Your task to perform on an android device: What is the recent news? Image 0: 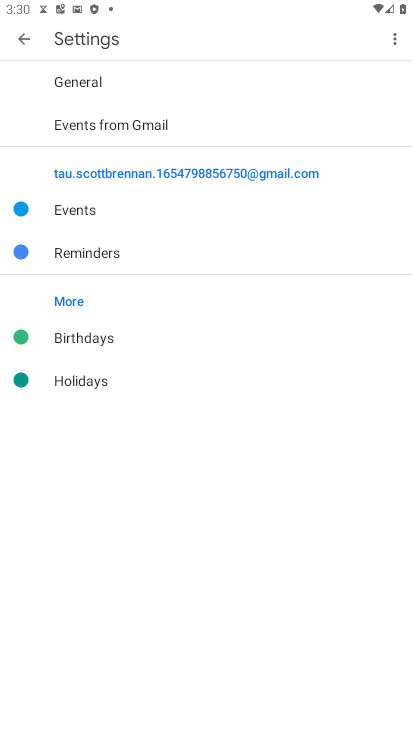
Step 0: press home button
Your task to perform on an android device: What is the recent news? Image 1: 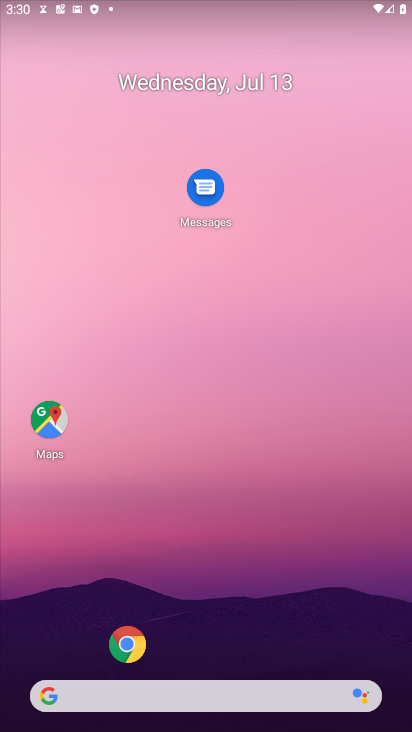
Step 1: click (183, 688)
Your task to perform on an android device: What is the recent news? Image 2: 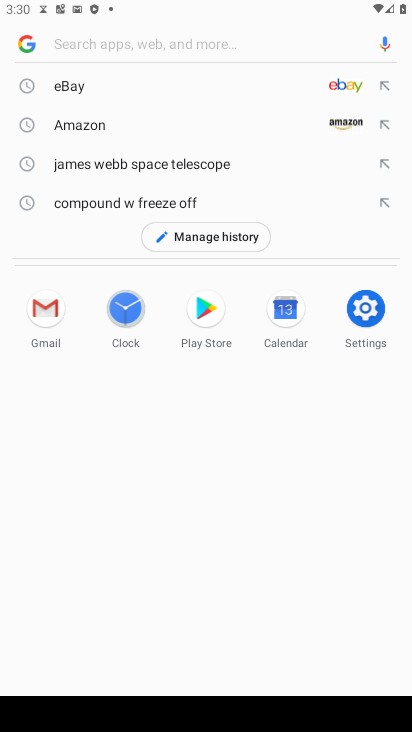
Step 2: type "What is the recent news?"
Your task to perform on an android device: What is the recent news? Image 3: 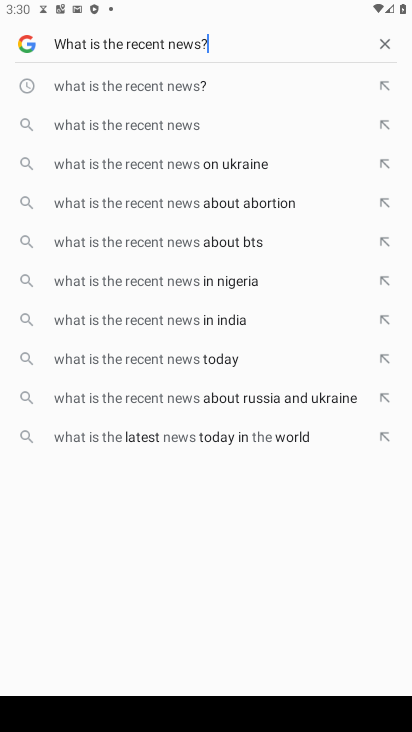
Step 3: type ""
Your task to perform on an android device: What is the recent news? Image 4: 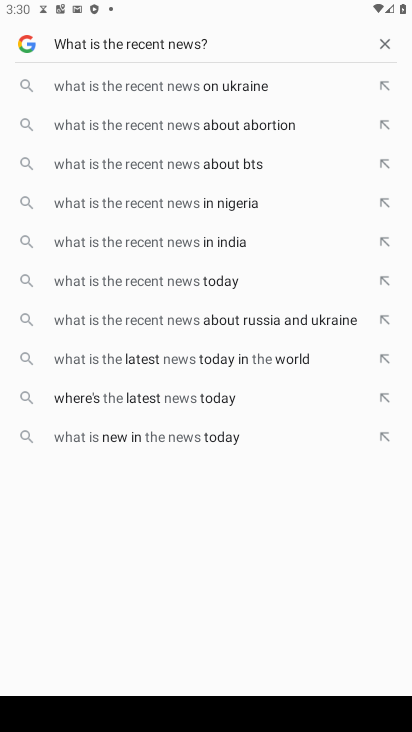
Step 4: type ""
Your task to perform on an android device: What is the recent news? Image 5: 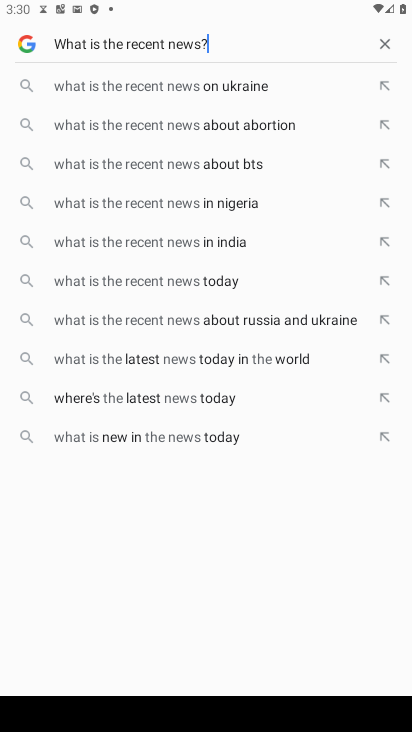
Step 5: type ""
Your task to perform on an android device: What is the recent news? Image 6: 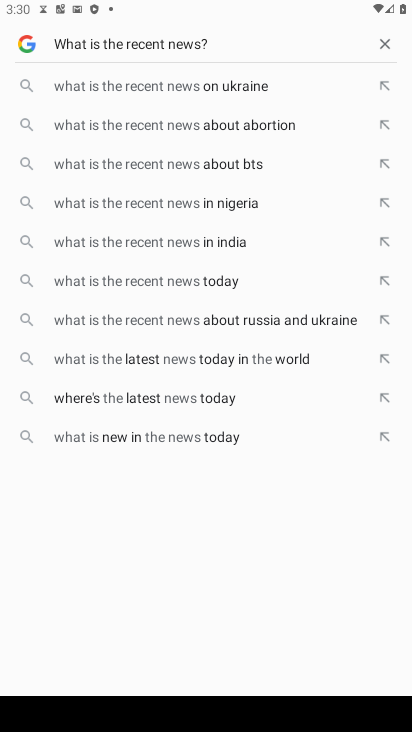
Step 6: type ""
Your task to perform on an android device: What is the recent news? Image 7: 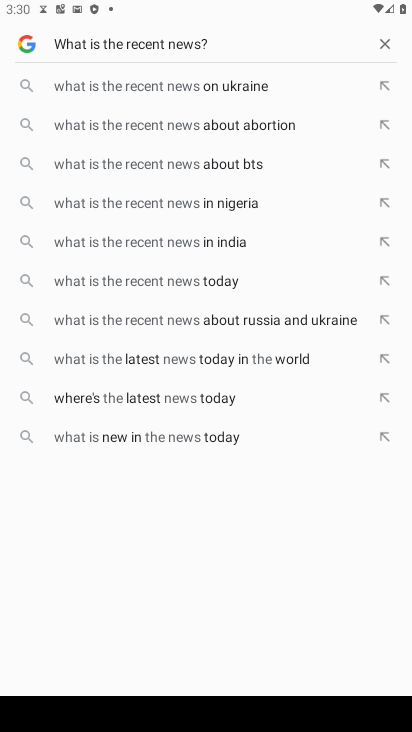
Step 7: task complete